Your task to perform on an android device: Find coffee shops on Maps Image 0: 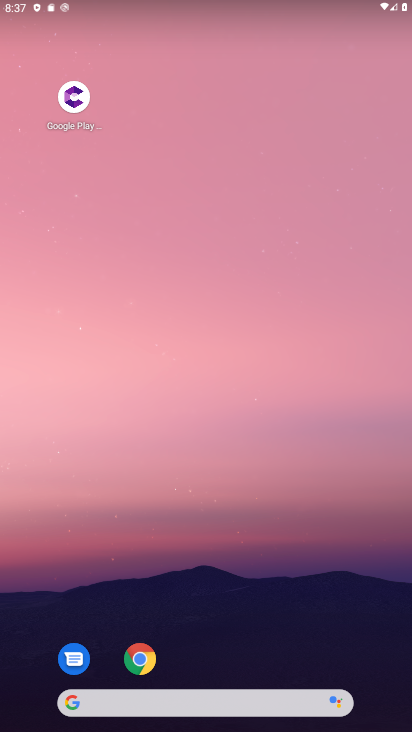
Step 0: drag from (215, 550) to (145, 126)
Your task to perform on an android device: Find coffee shops on Maps Image 1: 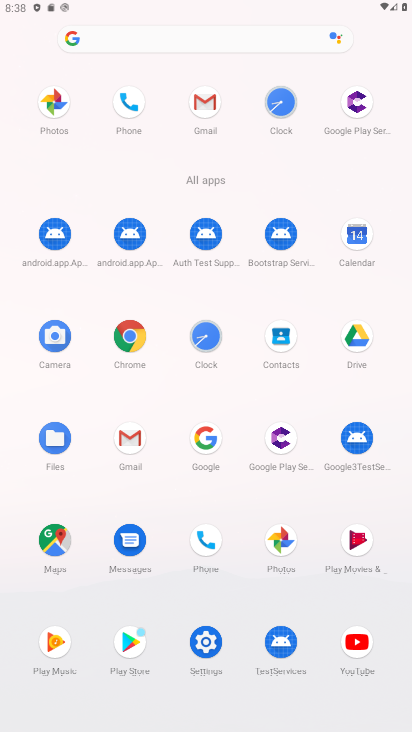
Step 1: click (49, 540)
Your task to perform on an android device: Find coffee shops on Maps Image 2: 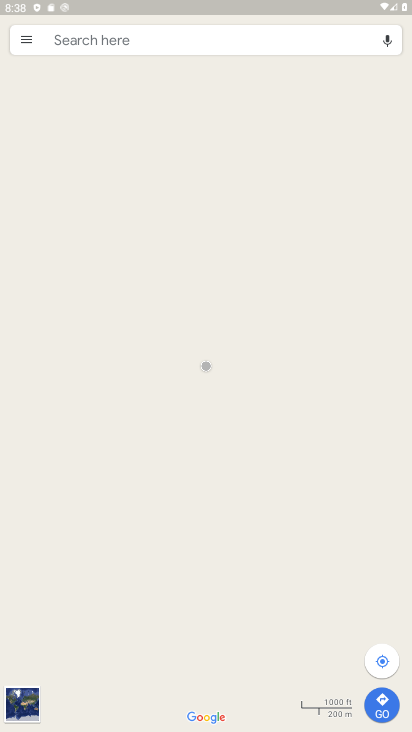
Step 2: click (151, 39)
Your task to perform on an android device: Find coffee shops on Maps Image 3: 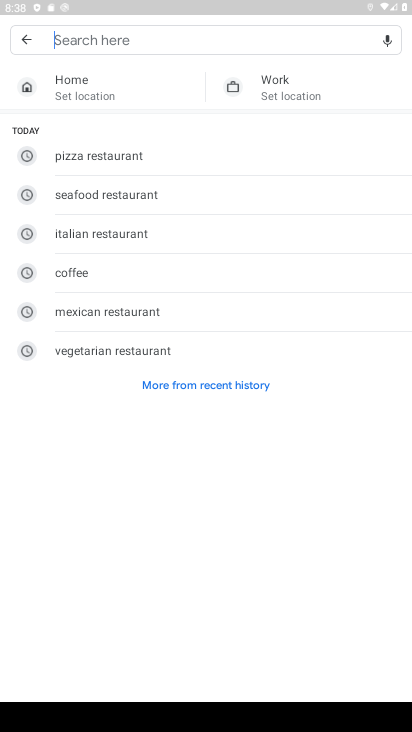
Step 3: type "coffee shops"
Your task to perform on an android device: Find coffee shops on Maps Image 4: 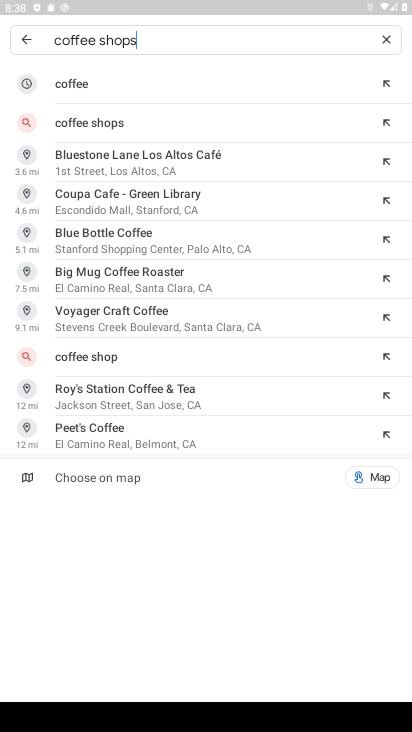
Step 4: click (96, 118)
Your task to perform on an android device: Find coffee shops on Maps Image 5: 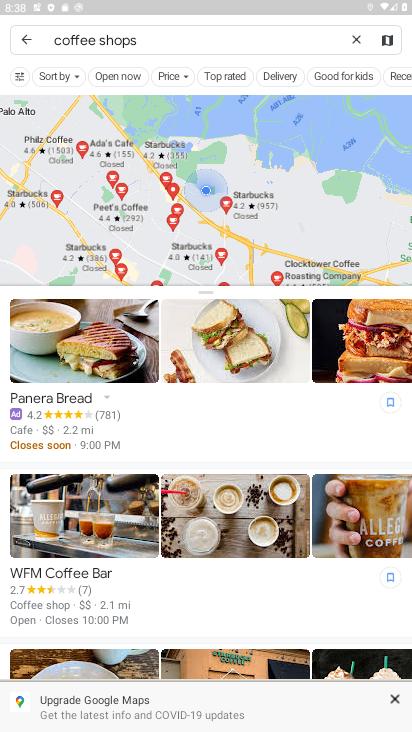
Step 5: task complete